Your task to perform on an android device: manage bookmarks in the chrome app Image 0: 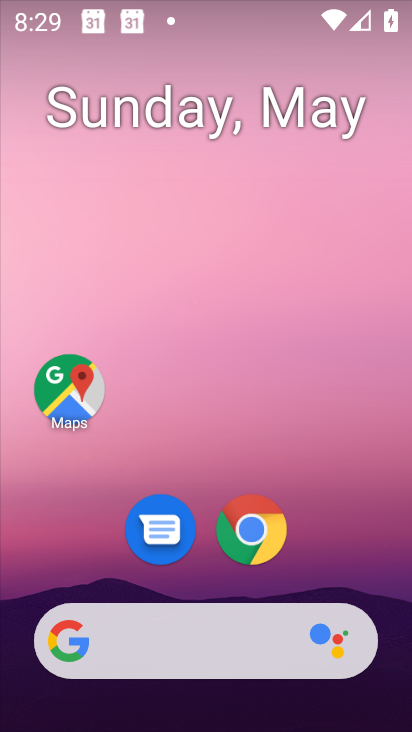
Step 0: click (272, 517)
Your task to perform on an android device: manage bookmarks in the chrome app Image 1: 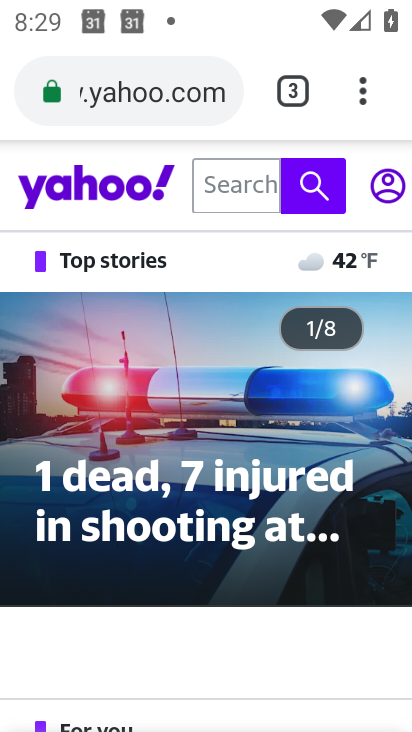
Step 1: click (359, 76)
Your task to perform on an android device: manage bookmarks in the chrome app Image 2: 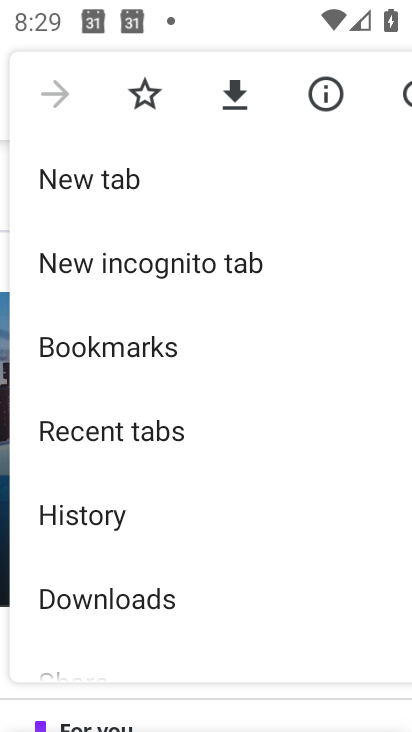
Step 2: click (233, 334)
Your task to perform on an android device: manage bookmarks in the chrome app Image 3: 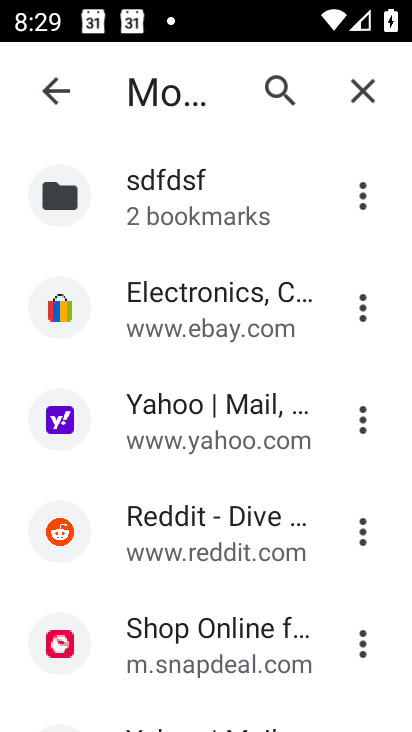
Step 3: task complete